Your task to perform on an android device: Open the phone app and click the voicemail tab. Image 0: 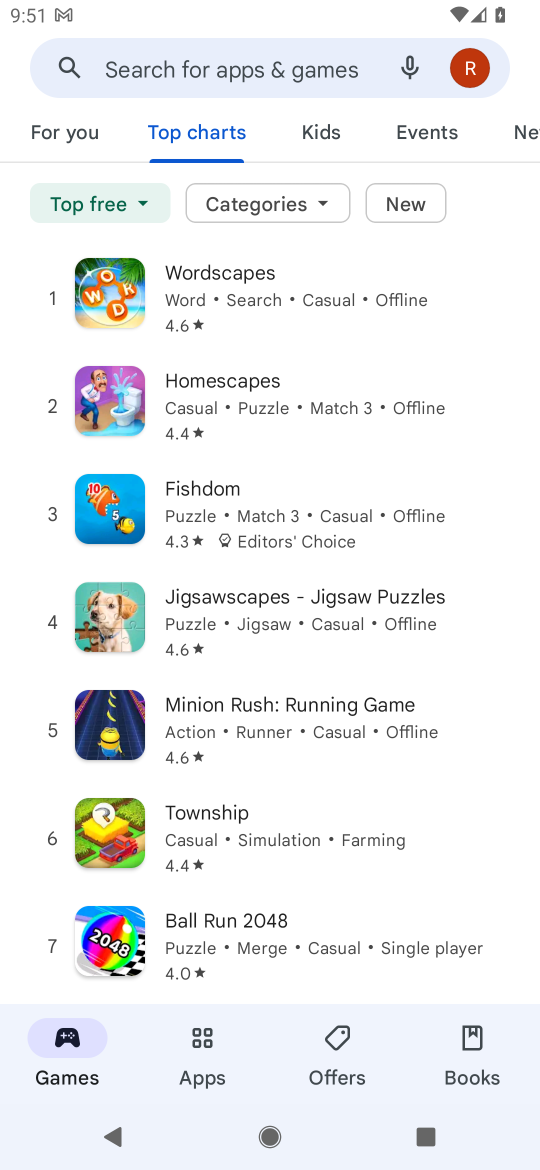
Step 0: press home button
Your task to perform on an android device: Open the phone app and click the voicemail tab. Image 1: 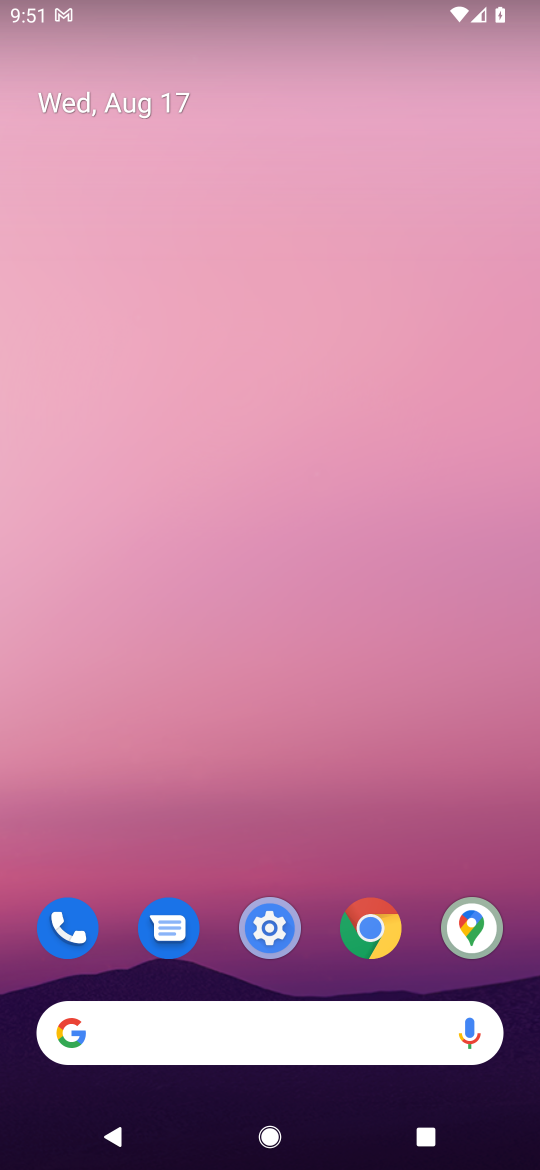
Step 1: drag from (299, 865) to (265, 146)
Your task to perform on an android device: Open the phone app and click the voicemail tab. Image 2: 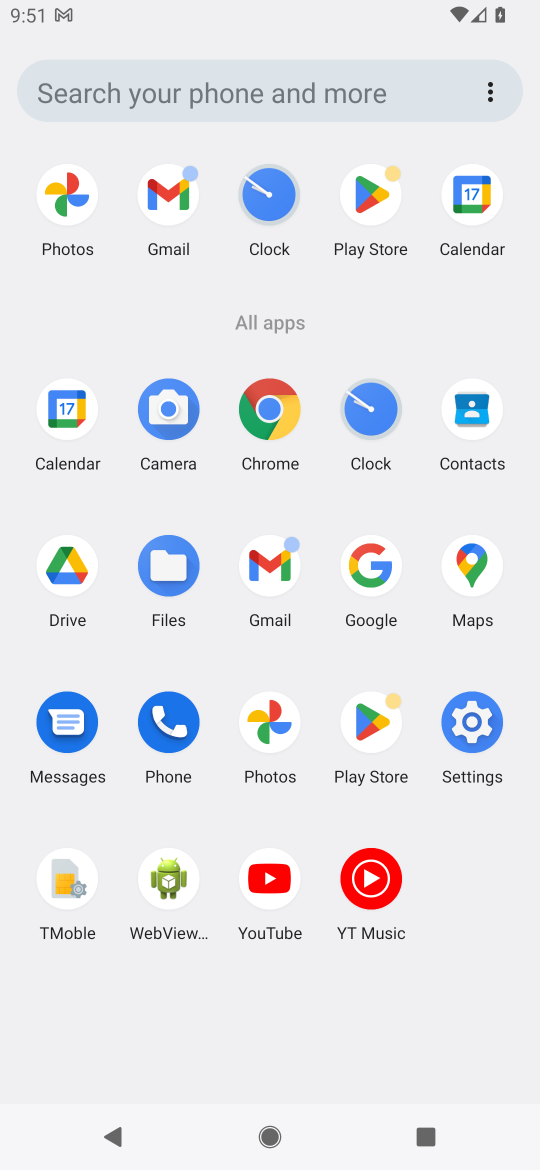
Step 2: click (167, 714)
Your task to perform on an android device: Open the phone app and click the voicemail tab. Image 3: 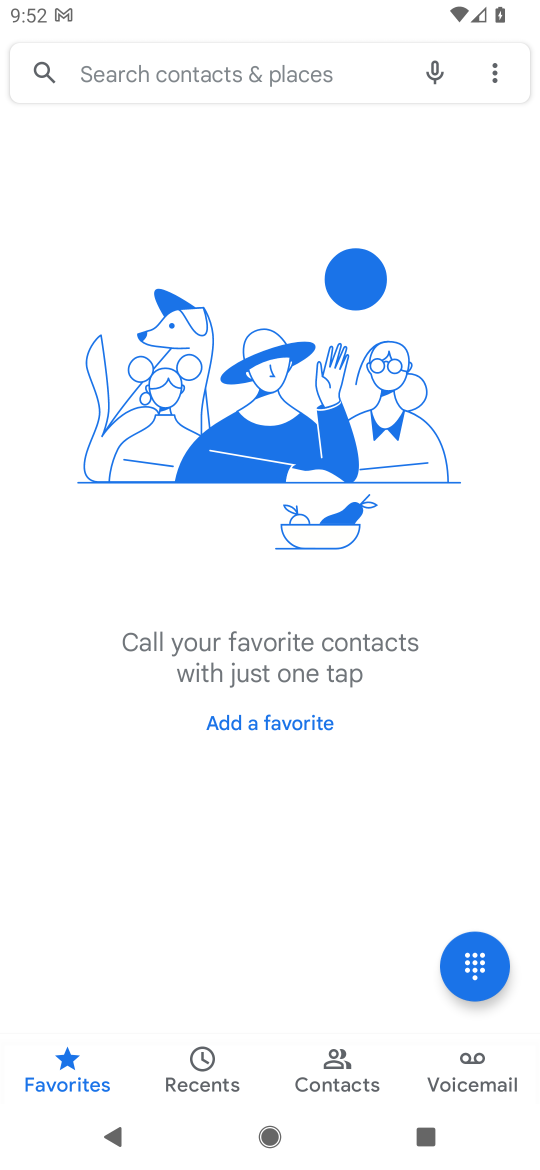
Step 3: click (474, 1059)
Your task to perform on an android device: Open the phone app and click the voicemail tab. Image 4: 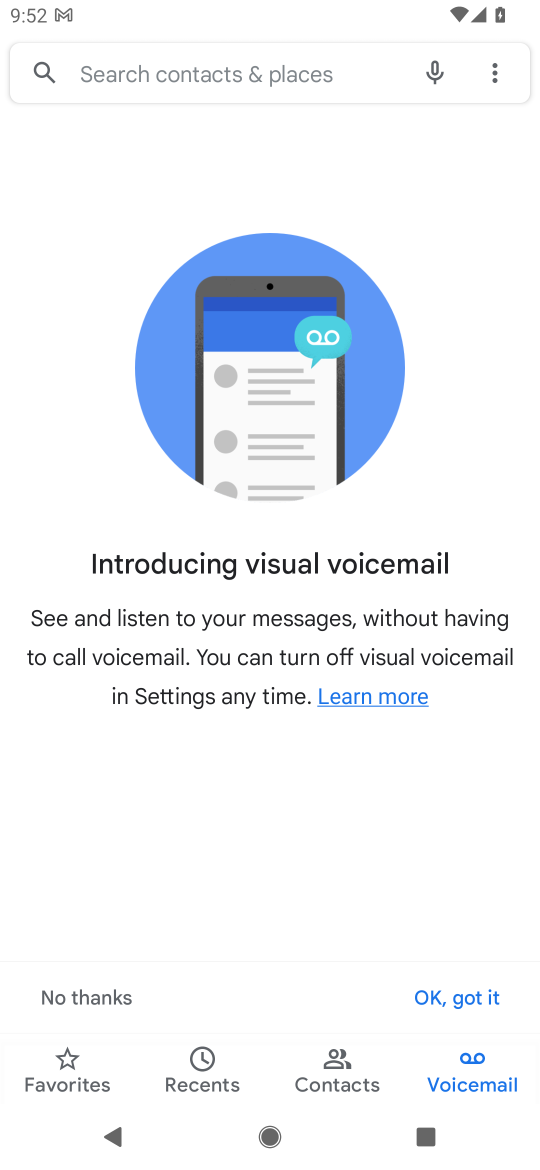
Step 4: task complete